Your task to perform on an android device: Go to Reddit.com Image 0: 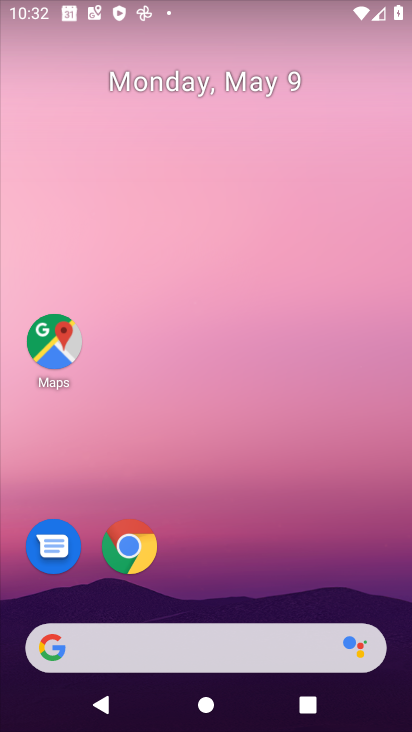
Step 0: click (271, 659)
Your task to perform on an android device: Go to Reddit.com Image 1: 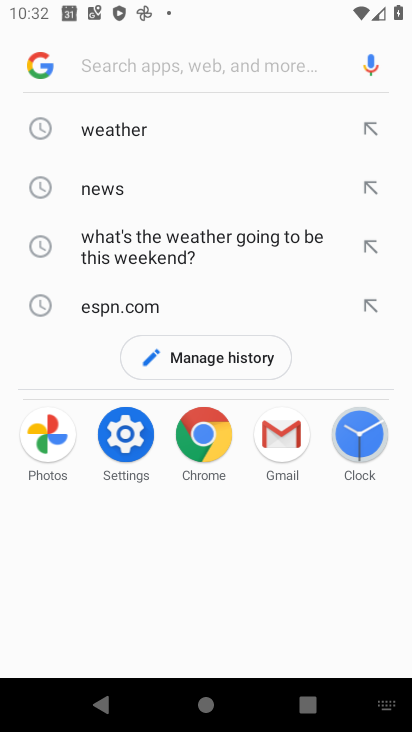
Step 1: type "reddit.com"
Your task to perform on an android device: Go to Reddit.com Image 2: 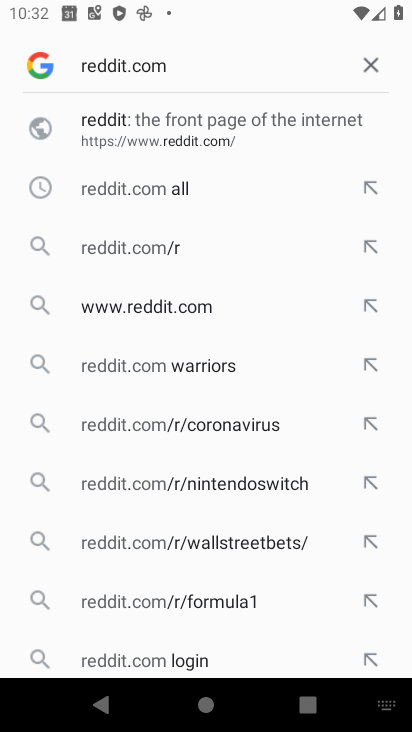
Step 2: click (257, 135)
Your task to perform on an android device: Go to Reddit.com Image 3: 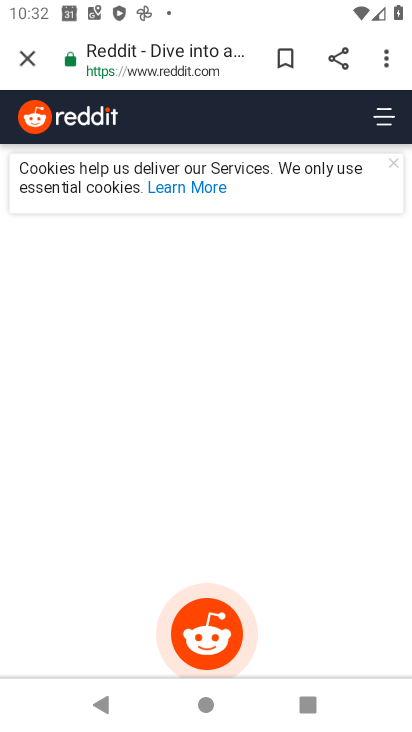
Step 3: task complete